Your task to perform on an android device: change timer sound Image 0: 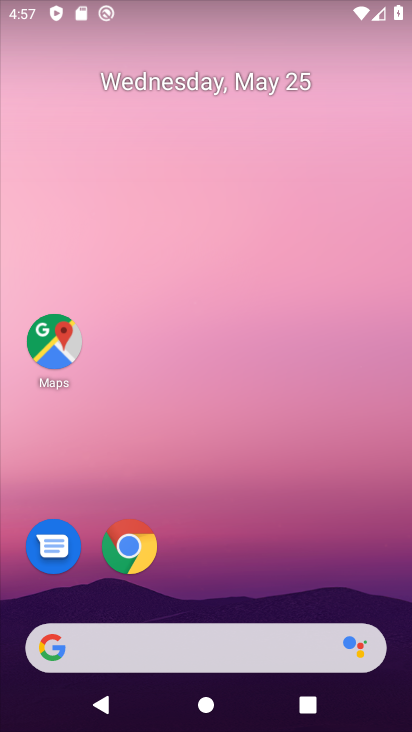
Step 0: drag from (264, 45) to (334, 2)
Your task to perform on an android device: change timer sound Image 1: 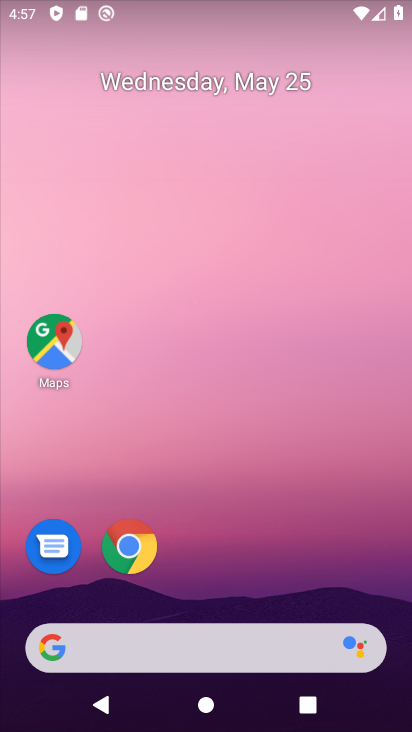
Step 1: drag from (255, 618) to (408, 125)
Your task to perform on an android device: change timer sound Image 2: 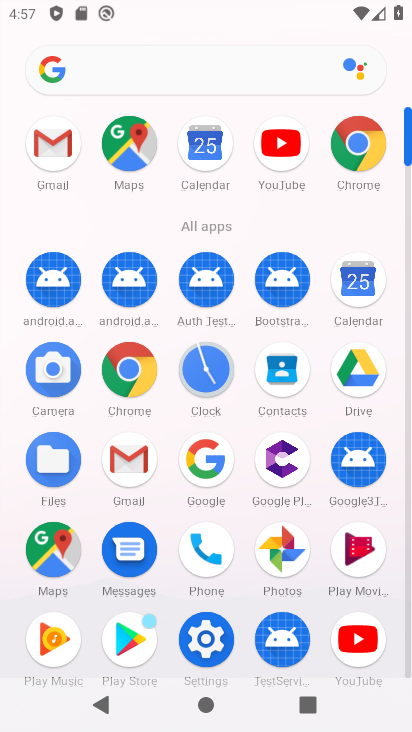
Step 2: click (201, 360)
Your task to perform on an android device: change timer sound Image 3: 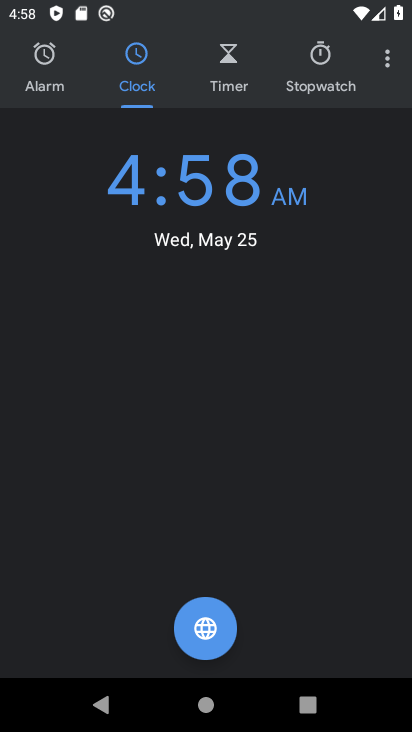
Step 3: click (377, 52)
Your task to perform on an android device: change timer sound Image 4: 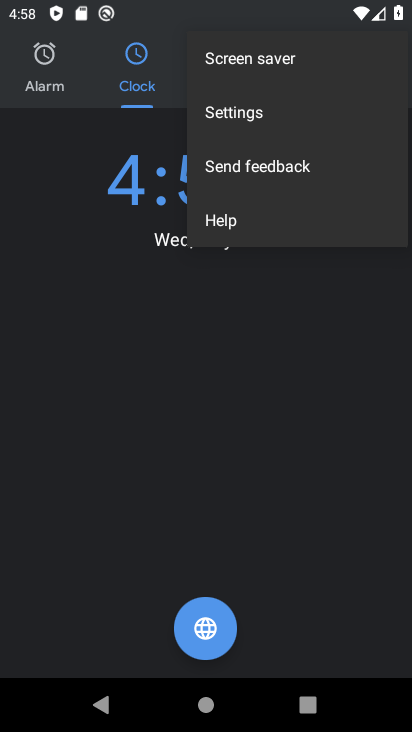
Step 4: click (311, 116)
Your task to perform on an android device: change timer sound Image 5: 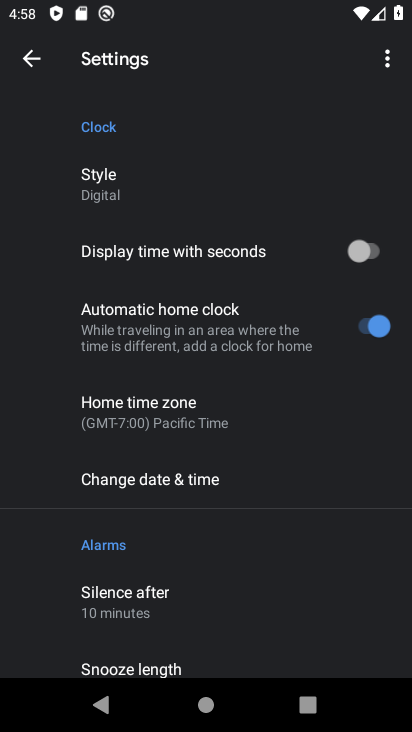
Step 5: drag from (262, 573) to (285, 225)
Your task to perform on an android device: change timer sound Image 6: 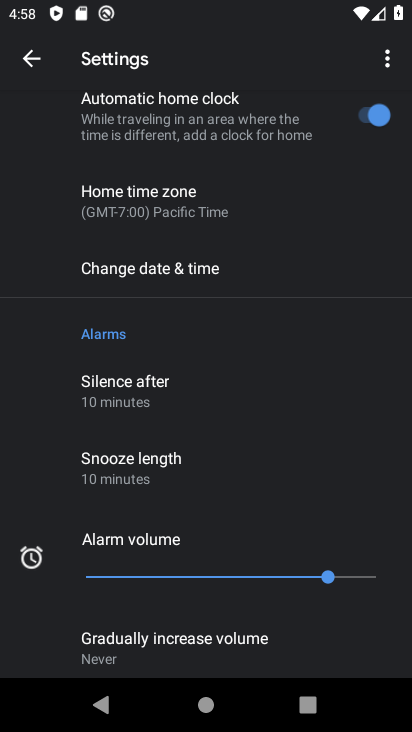
Step 6: drag from (233, 614) to (249, 221)
Your task to perform on an android device: change timer sound Image 7: 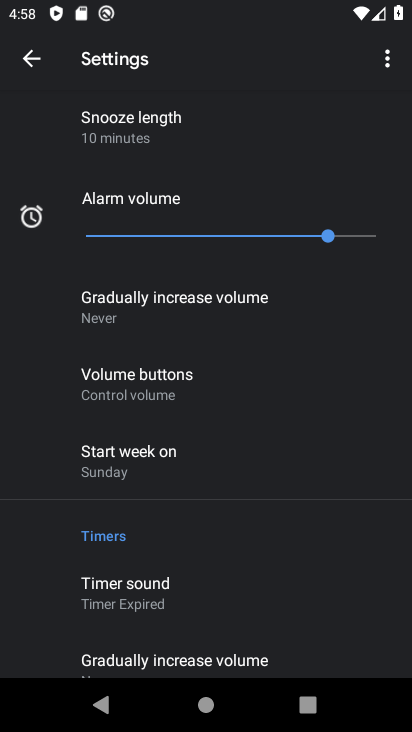
Step 7: click (156, 585)
Your task to perform on an android device: change timer sound Image 8: 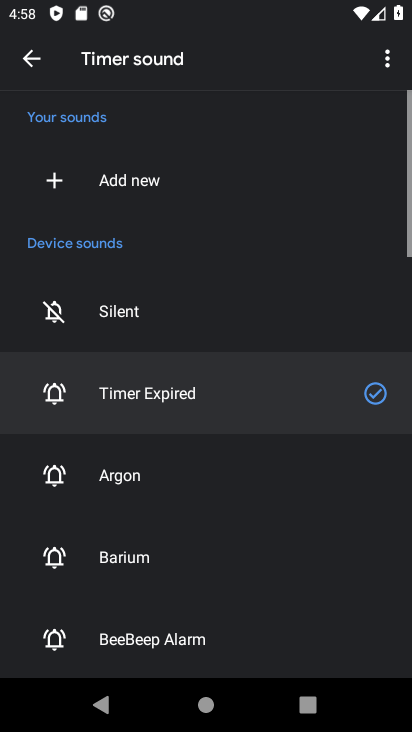
Step 8: click (167, 640)
Your task to perform on an android device: change timer sound Image 9: 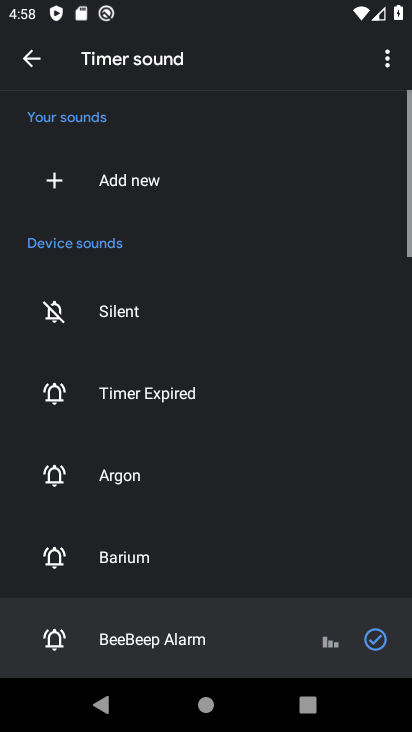
Step 9: task complete